Your task to perform on an android device: Do I have any events tomorrow? Image 0: 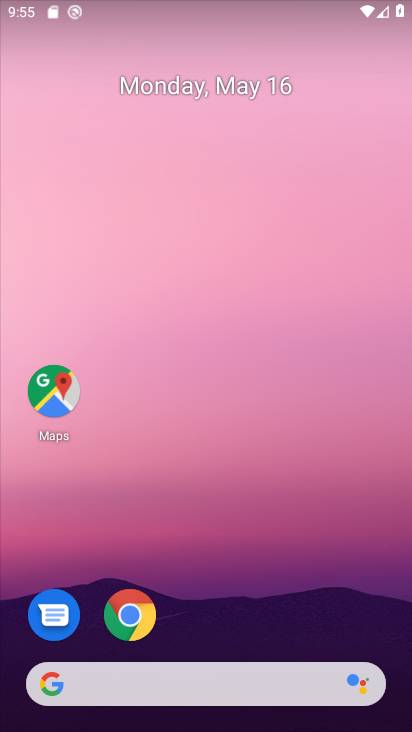
Step 0: drag from (310, 592) to (253, 40)
Your task to perform on an android device: Do I have any events tomorrow? Image 1: 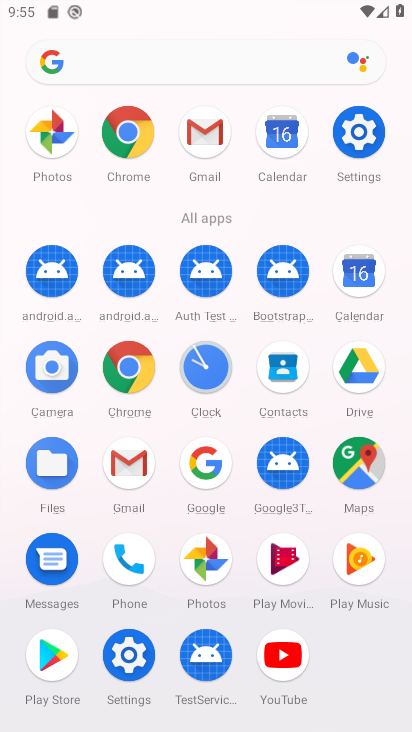
Step 1: drag from (17, 573) to (17, 278)
Your task to perform on an android device: Do I have any events tomorrow? Image 2: 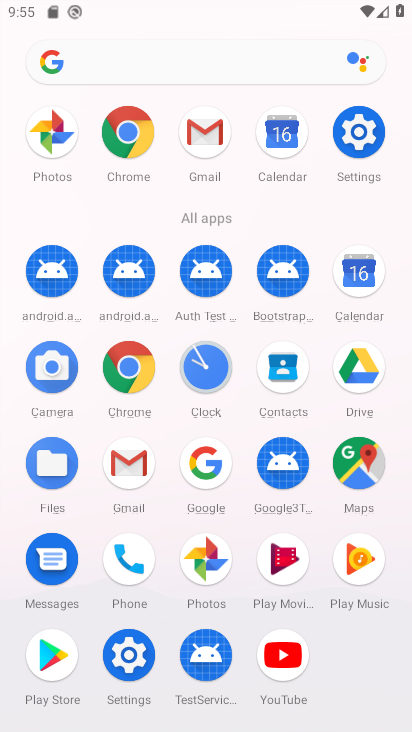
Step 2: drag from (11, 578) to (12, 287)
Your task to perform on an android device: Do I have any events tomorrow? Image 3: 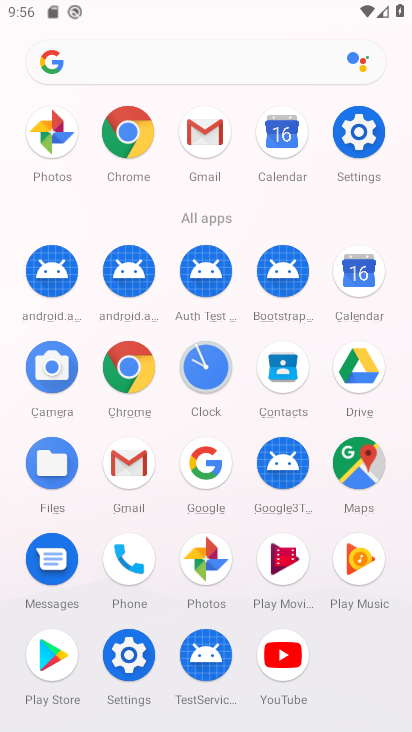
Step 3: drag from (19, 220) to (7, 525)
Your task to perform on an android device: Do I have any events tomorrow? Image 4: 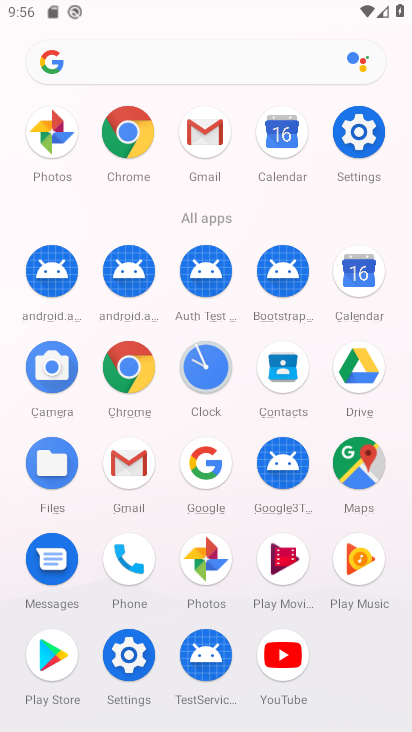
Step 4: drag from (20, 541) to (4, 241)
Your task to perform on an android device: Do I have any events tomorrow? Image 5: 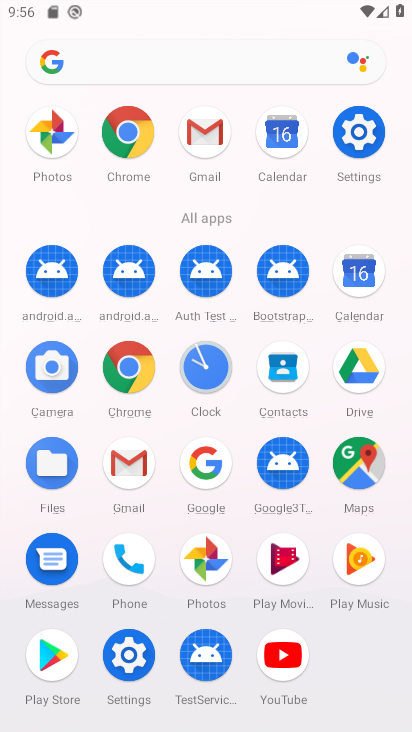
Step 5: click (351, 277)
Your task to perform on an android device: Do I have any events tomorrow? Image 6: 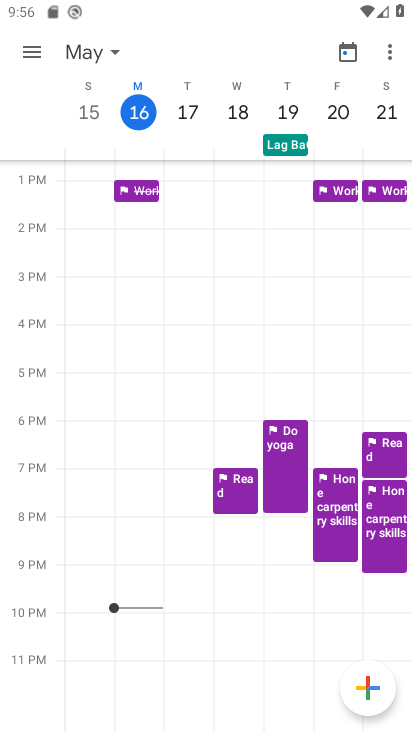
Step 6: click (186, 102)
Your task to perform on an android device: Do I have any events tomorrow? Image 7: 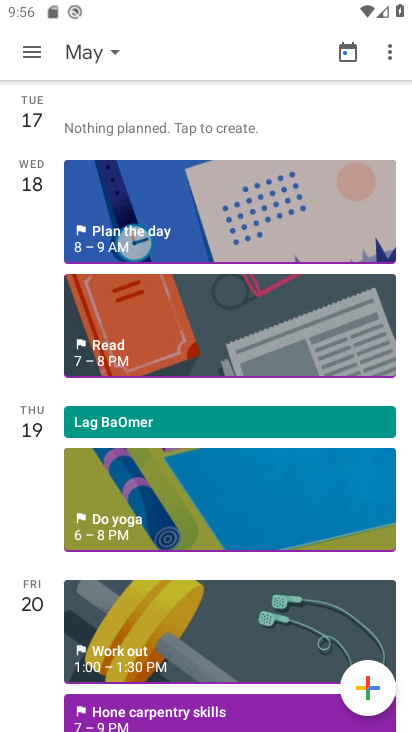
Step 7: task complete